Your task to perform on an android device: open device folders in google photos Image 0: 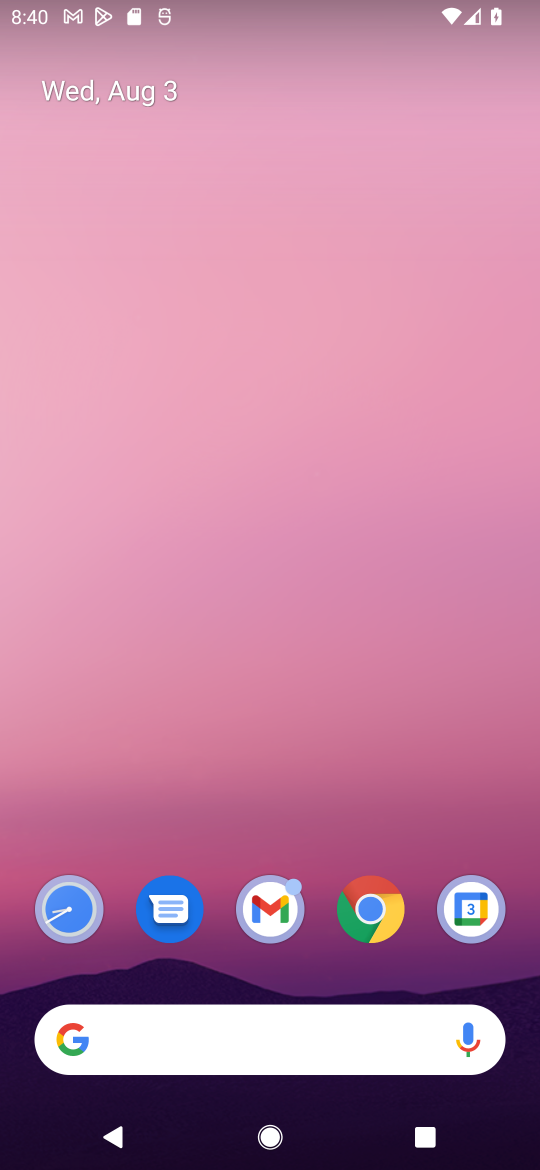
Step 0: press home button
Your task to perform on an android device: open device folders in google photos Image 1: 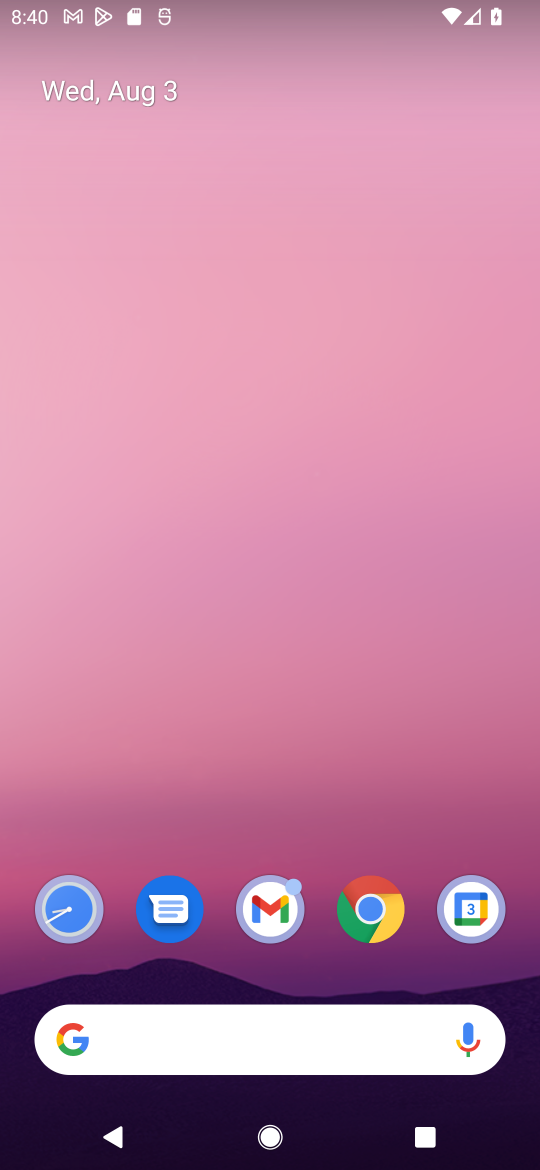
Step 1: drag from (401, 810) to (408, 260)
Your task to perform on an android device: open device folders in google photos Image 2: 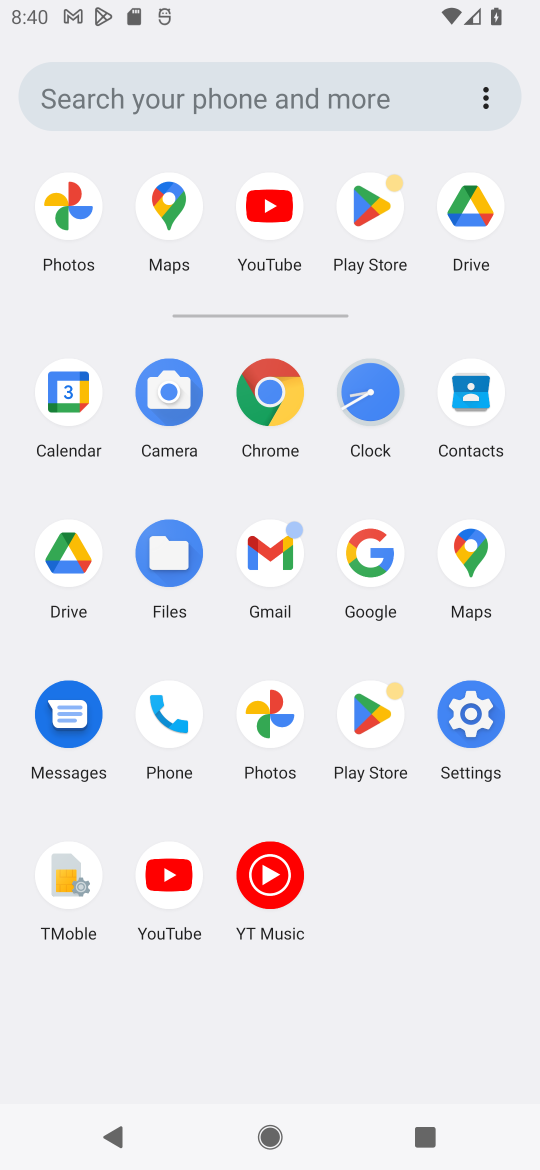
Step 2: click (278, 726)
Your task to perform on an android device: open device folders in google photos Image 3: 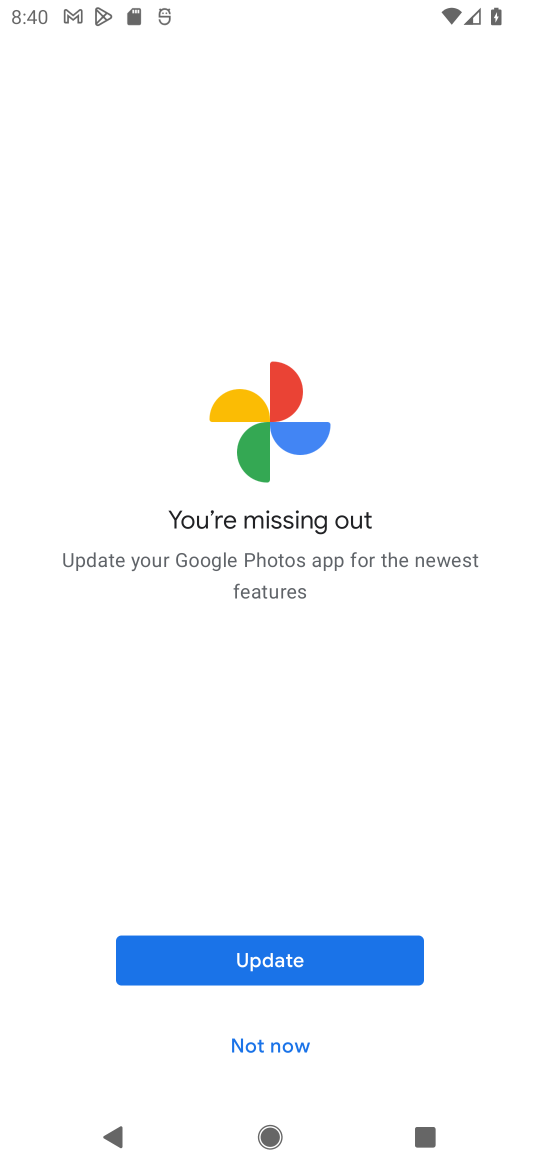
Step 3: click (274, 1042)
Your task to perform on an android device: open device folders in google photos Image 4: 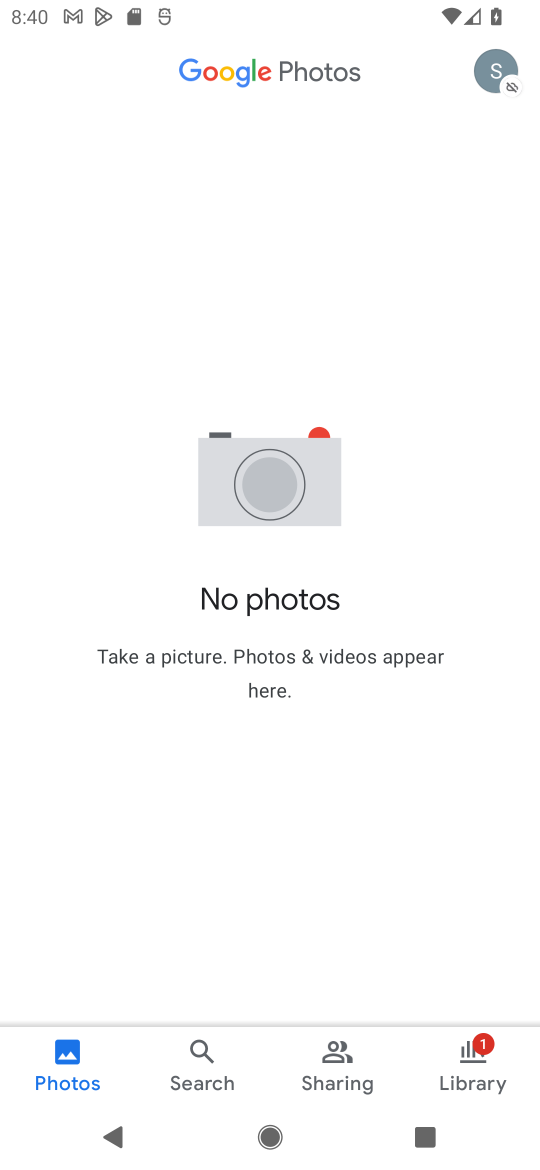
Step 4: click (472, 1053)
Your task to perform on an android device: open device folders in google photos Image 5: 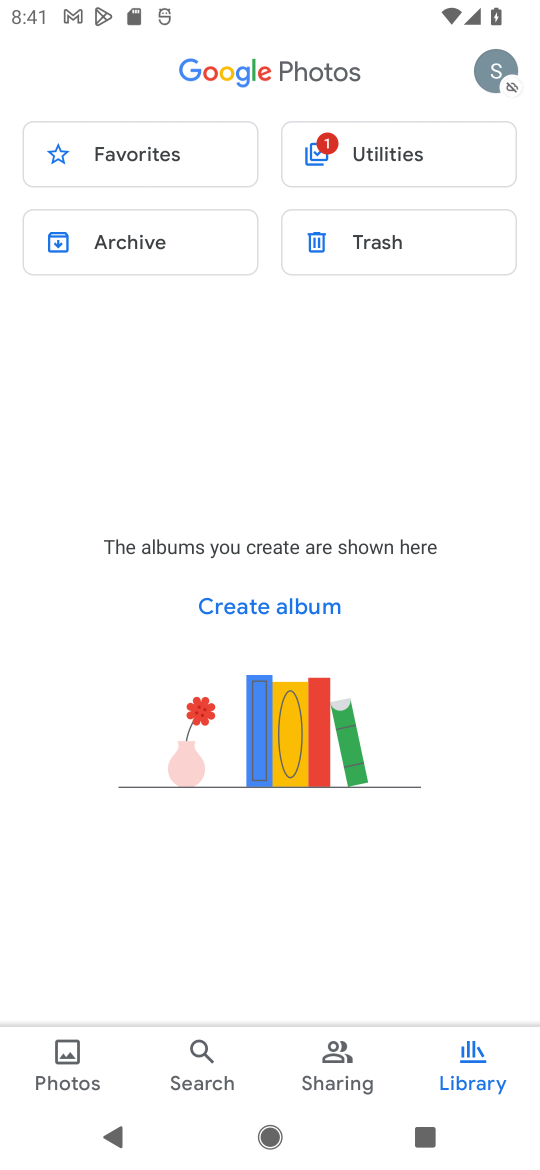
Step 5: task complete